Your task to perform on an android device: turn off priority inbox in the gmail app Image 0: 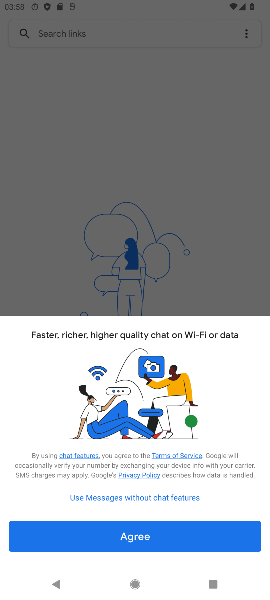
Step 0: press home button
Your task to perform on an android device: turn off priority inbox in the gmail app Image 1: 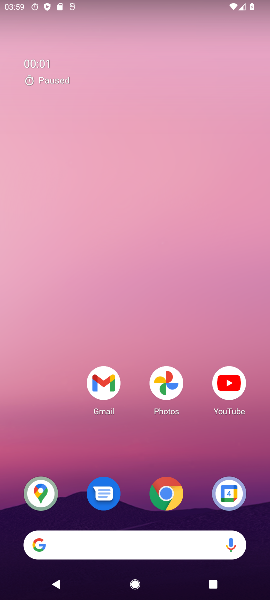
Step 1: drag from (51, 513) to (206, 56)
Your task to perform on an android device: turn off priority inbox in the gmail app Image 2: 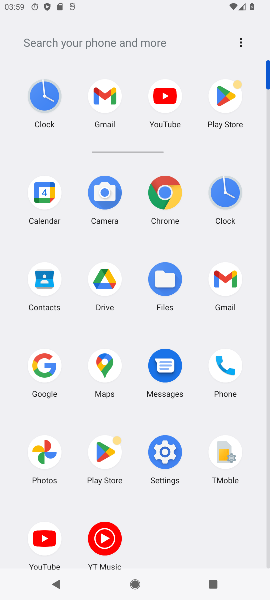
Step 2: click (206, 280)
Your task to perform on an android device: turn off priority inbox in the gmail app Image 3: 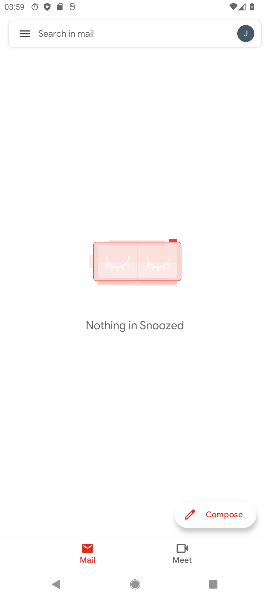
Step 3: click (31, 33)
Your task to perform on an android device: turn off priority inbox in the gmail app Image 4: 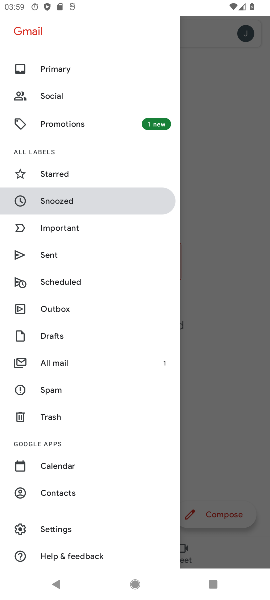
Step 4: click (63, 526)
Your task to perform on an android device: turn off priority inbox in the gmail app Image 5: 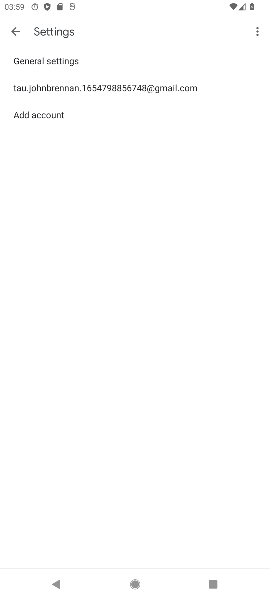
Step 5: click (46, 66)
Your task to perform on an android device: turn off priority inbox in the gmail app Image 6: 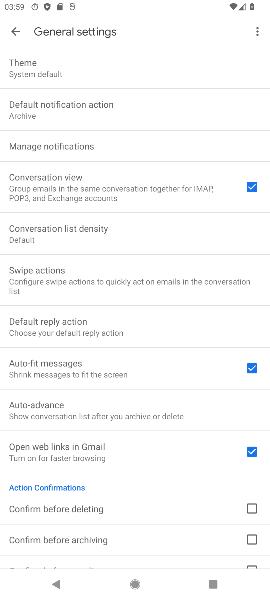
Step 6: click (19, 31)
Your task to perform on an android device: turn off priority inbox in the gmail app Image 7: 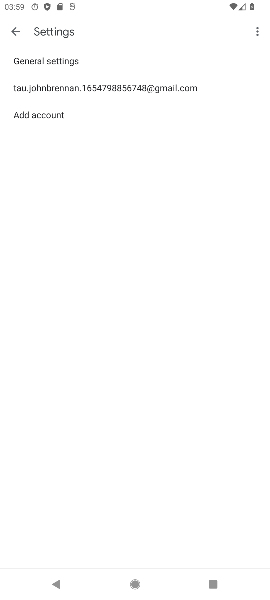
Step 7: click (57, 91)
Your task to perform on an android device: turn off priority inbox in the gmail app Image 8: 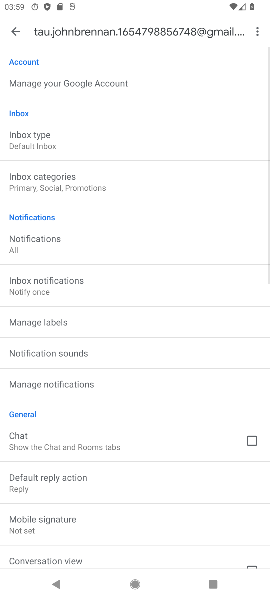
Step 8: click (45, 131)
Your task to perform on an android device: turn off priority inbox in the gmail app Image 9: 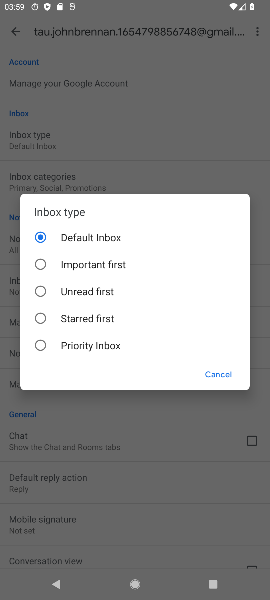
Step 9: click (38, 344)
Your task to perform on an android device: turn off priority inbox in the gmail app Image 10: 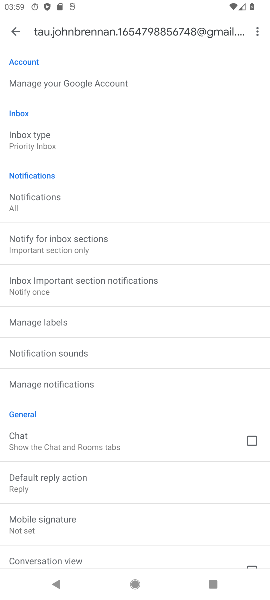
Step 10: task complete